Your task to perform on an android device: Open calendar and show me the first week of next month Image 0: 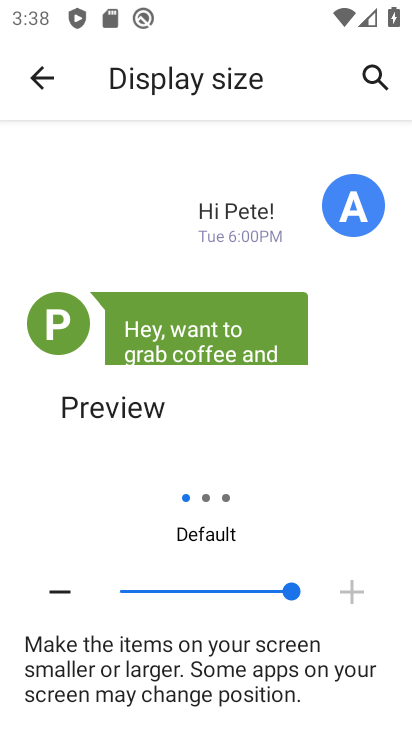
Step 0: press home button
Your task to perform on an android device: Open calendar and show me the first week of next month Image 1: 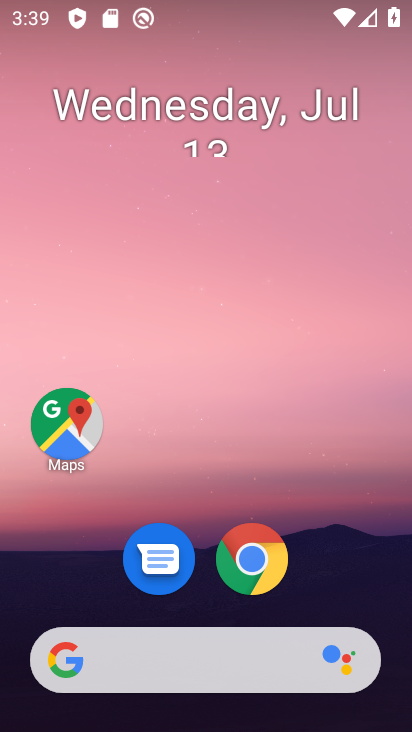
Step 1: drag from (159, 613) to (198, 213)
Your task to perform on an android device: Open calendar and show me the first week of next month Image 2: 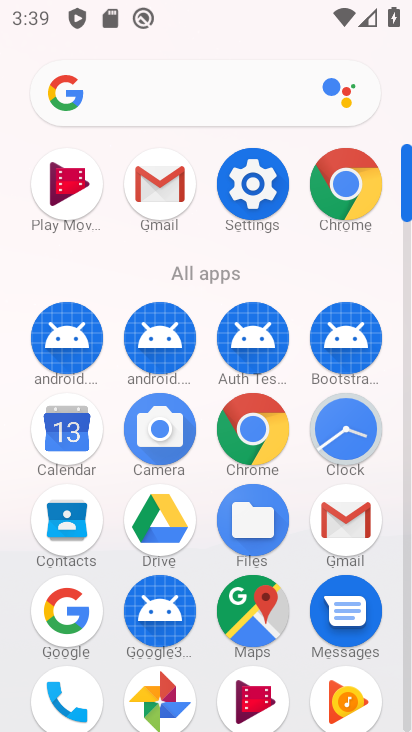
Step 2: click (68, 441)
Your task to perform on an android device: Open calendar and show me the first week of next month Image 3: 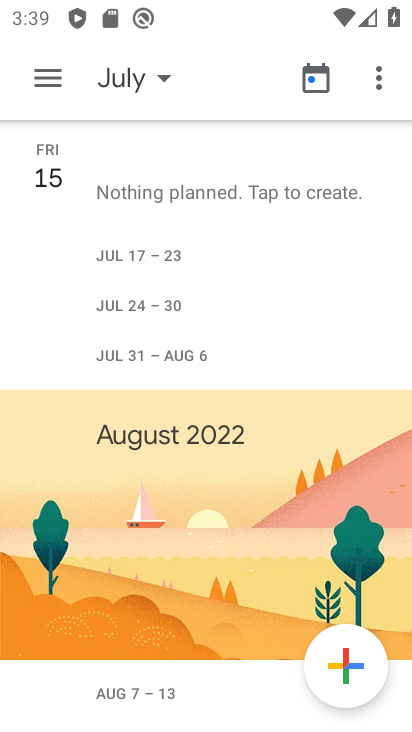
Step 3: click (126, 83)
Your task to perform on an android device: Open calendar and show me the first week of next month Image 4: 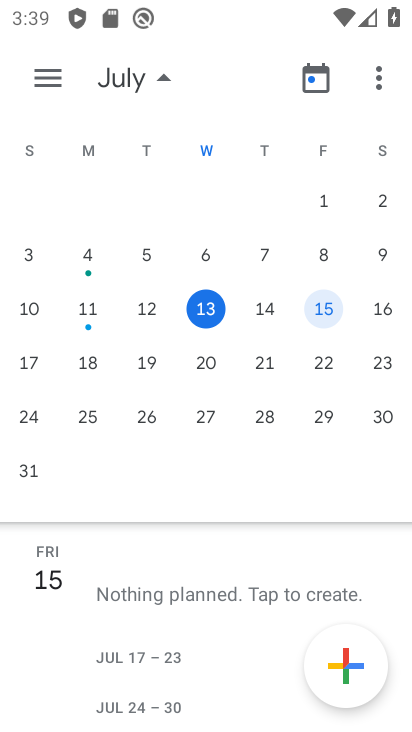
Step 4: drag from (341, 265) to (18, 301)
Your task to perform on an android device: Open calendar and show me the first week of next month Image 5: 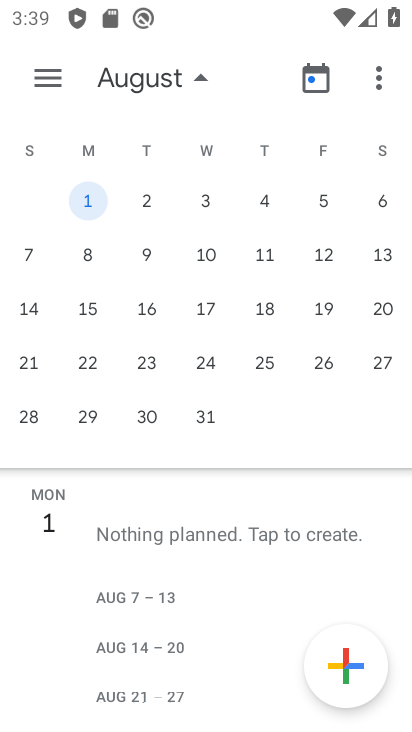
Step 5: click (82, 199)
Your task to perform on an android device: Open calendar and show me the first week of next month Image 6: 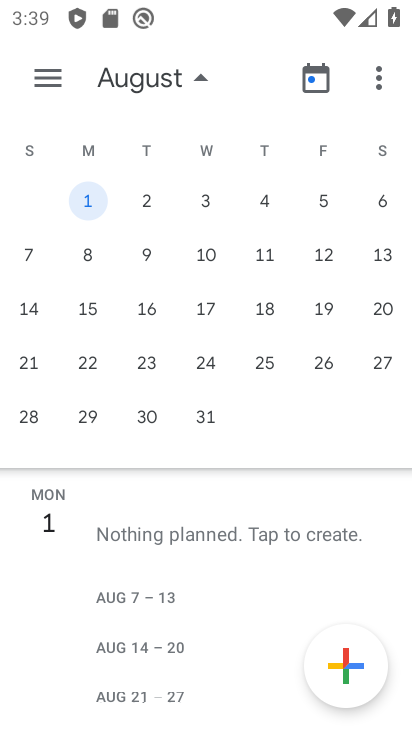
Step 6: task complete